Your task to perform on an android device: Do I have any events this weekend? Image 0: 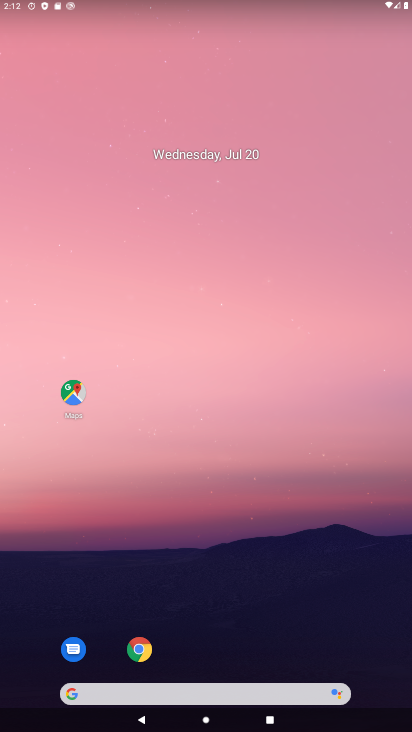
Step 0: drag from (215, 520) to (174, 243)
Your task to perform on an android device: Do I have any events this weekend? Image 1: 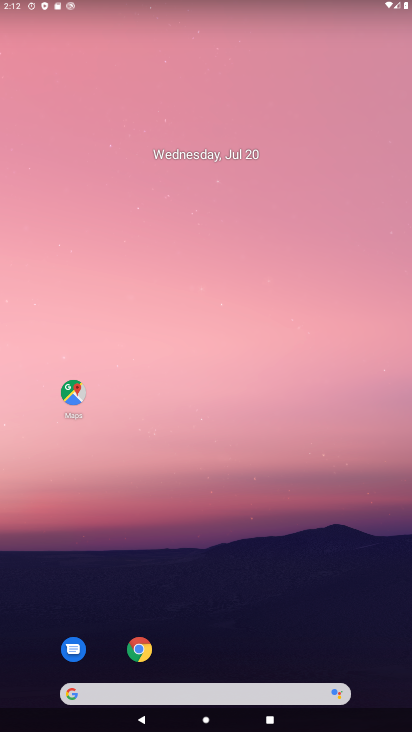
Step 1: drag from (283, 536) to (214, 157)
Your task to perform on an android device: Do I have any events this weekend? Image 2: 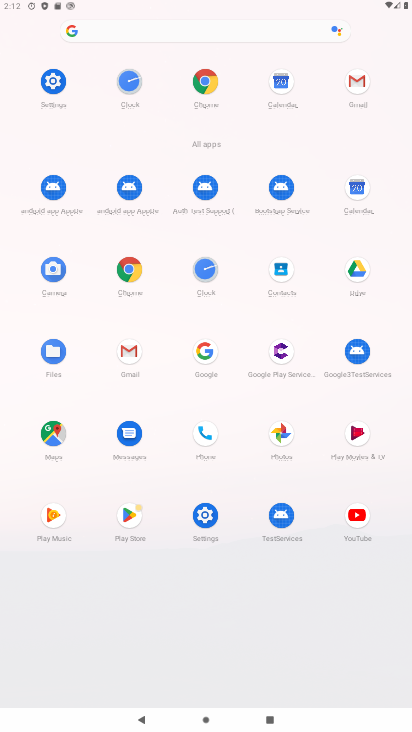
Step 2: click (358, 192)
Your task to perform on an android device: Do I have any events this weekend? Image 3: 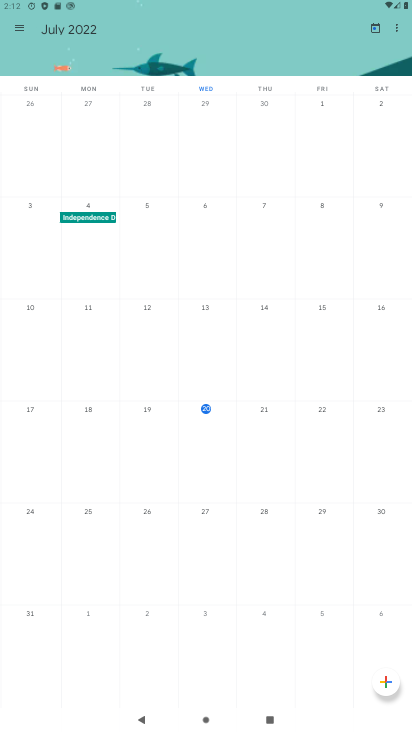
Step 3: task complete